Your task to perform on an android device: turn off translation in the chrome app Image 0: 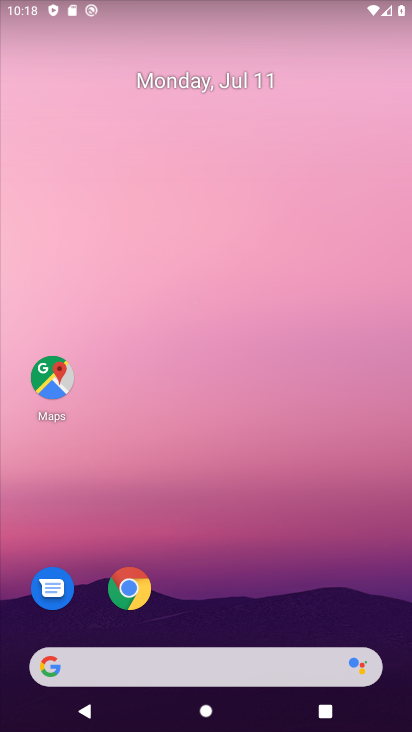
Step 0: click (132, 590)
Your task to perform on an android device: turn off translation in the chrome app Image 1: 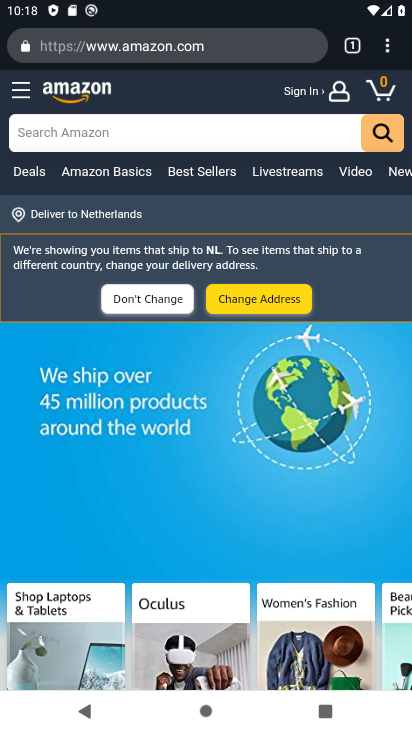
Step 1: click (384, 45)
Your task to perform on an android device: turn off translation in the chrome app Image 2: 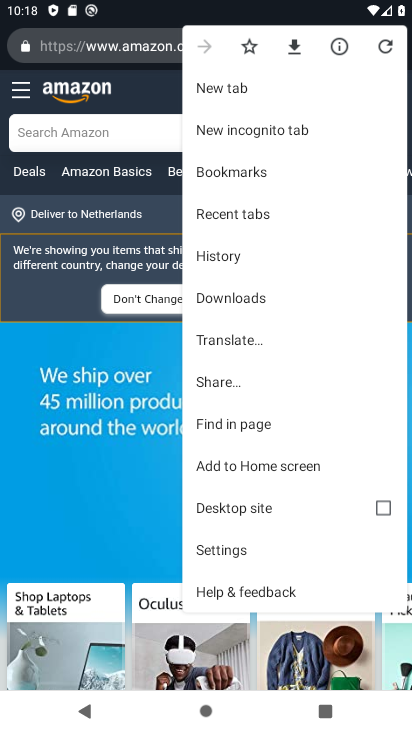
Step 2: click (233, 545)
Your task to perform on an android device: turn off translation in the chrome app Image 3: 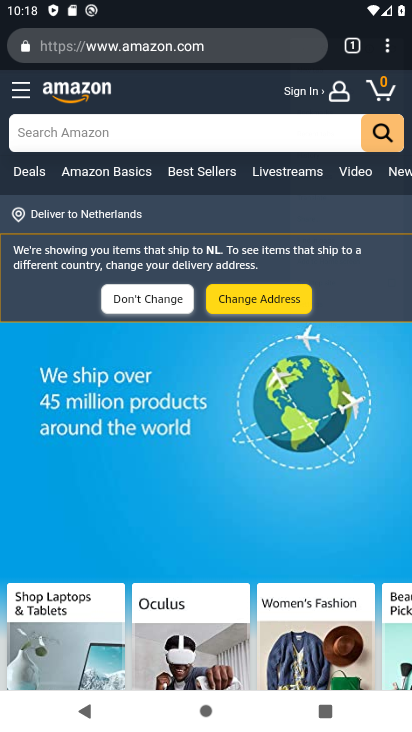
Step 3: click (233, 545)
Your task to perform on an android device: turn off translation in the chrome app Image 4: 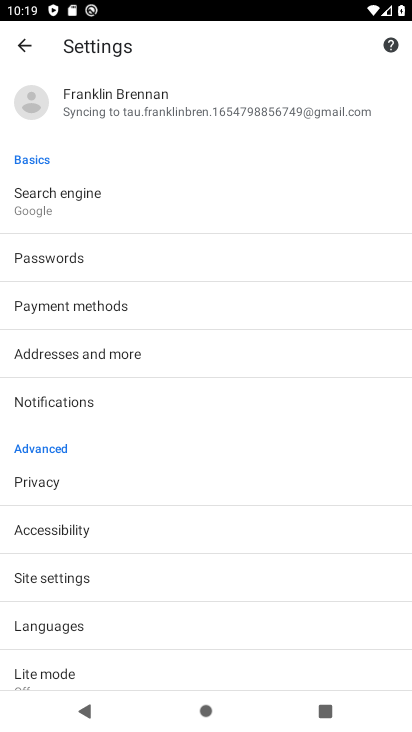
Step 4: click (58, 621)
Your task to perform on an android device: turn off translation in the chrome app Image 5: 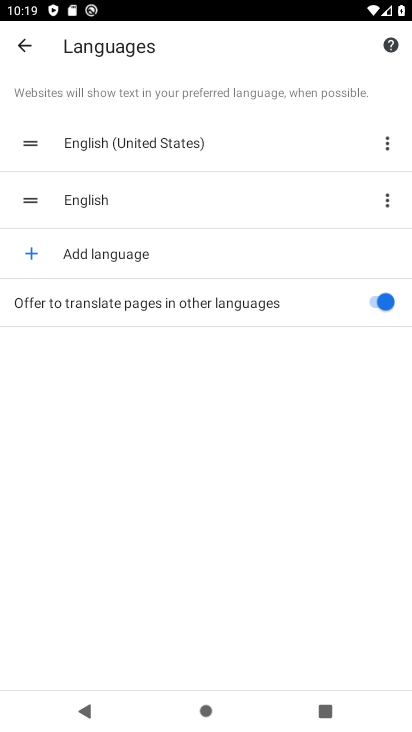
Step 5: click (384, 294)
Your task to perform on an android device: turn off translation in the chrome app Image 6: 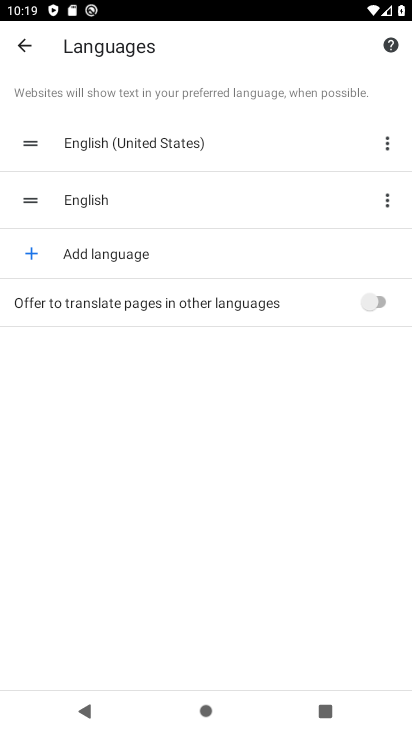
Step 6: task complete